Your task to perform on an android device: Go to Amazon Image 0: 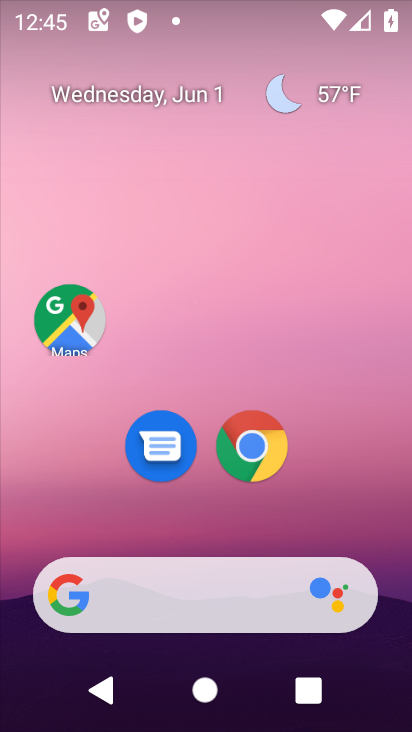
Step 0: drag from (220, 529) to (270, 8)
Your task to perform on an android device: Go to Amazon Image 1: 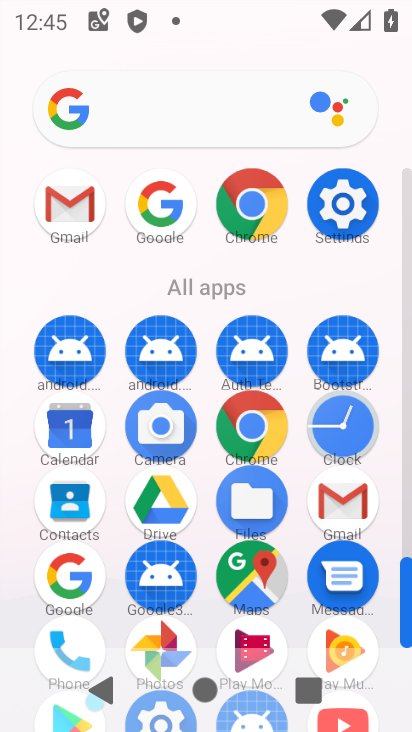
Step 1: drag from (201, 277) to (209, 94)
Your task to perform on an android device: Go to Amazon Image 2: 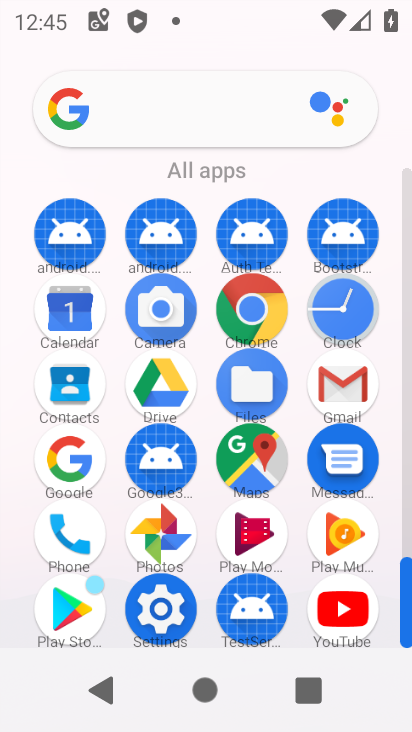
Step 2: click (267, 309)
Your task to perform on an android device: Go to Amazon Image 3: 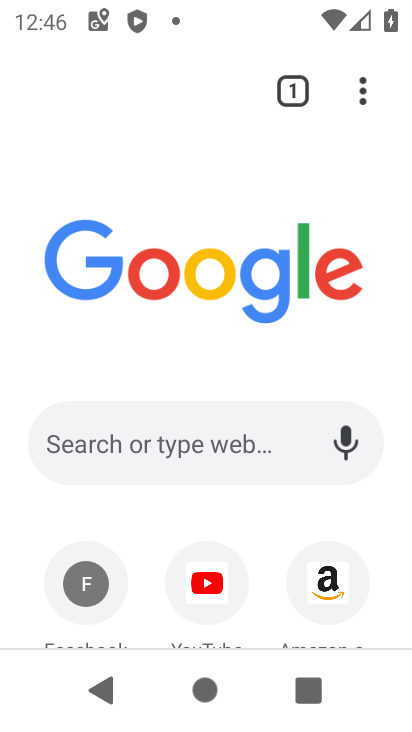
Step 3: drag from (235, 522) to (241, 321)
Your task to perform on an android device: Go to Amazon Image 4: 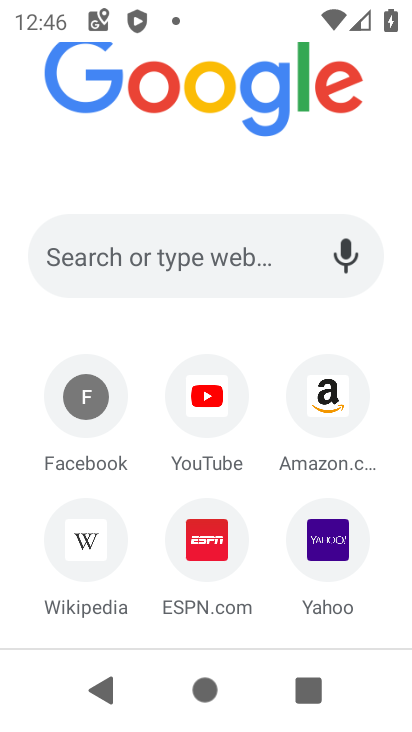
Step 4: click (338, 413)
Your task to perform on an android device: Go to Amazon Image 5: 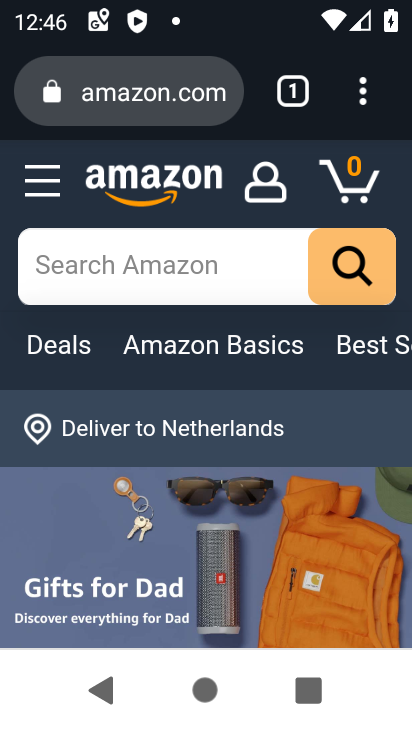
Step 5: task complete